Your task to perform on an android device: Search for the new steph curry shoes on Amazon. Image 0: 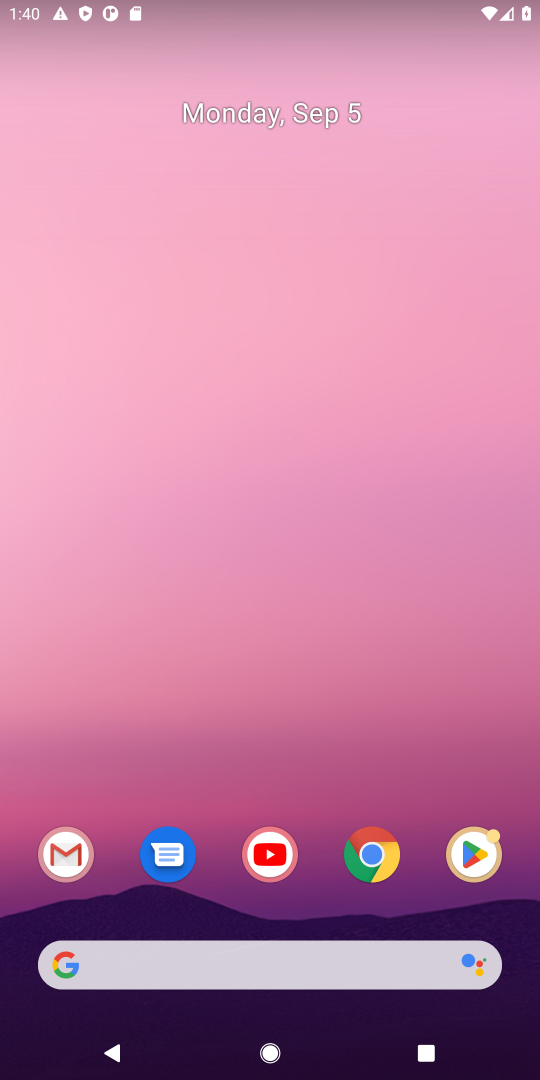
Step 0: click (346, 967)
Your task to perform on an android device: Search for the new steph curry shoes on Amazon. Image 1: 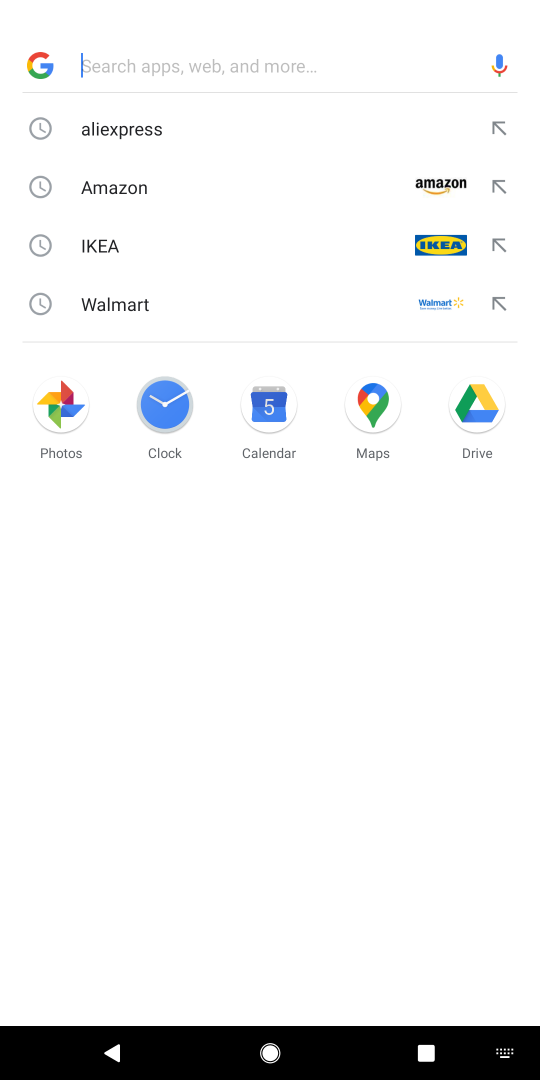
Step 1: press enter
Your task to perform on an android device: Search for the new steph curry shoes on Amazon. Image 2: 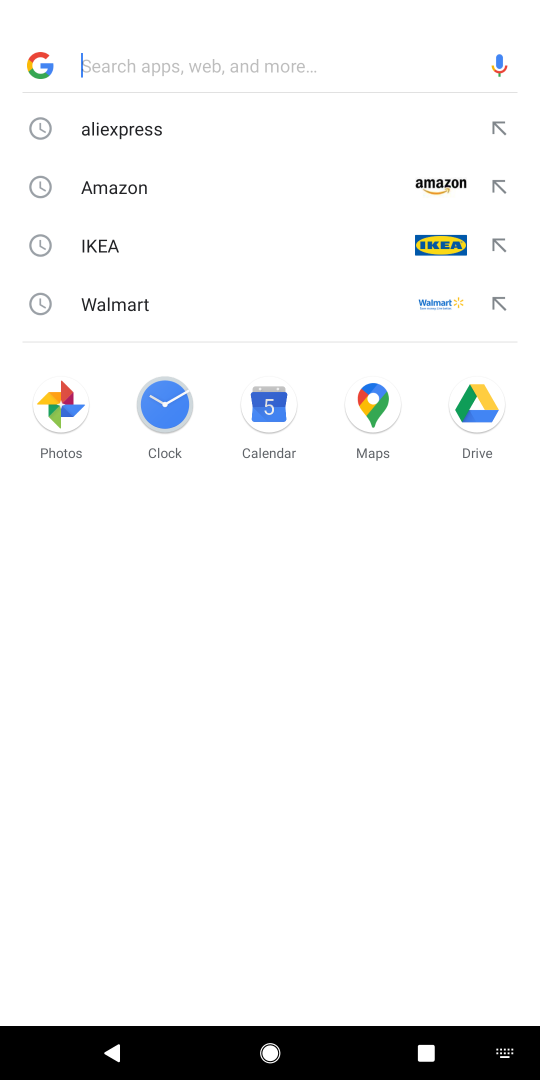
Step 2: type "amazon"
Your task to perform on an android device: Search for the new steph curry shoes on Amazon. Image 3: 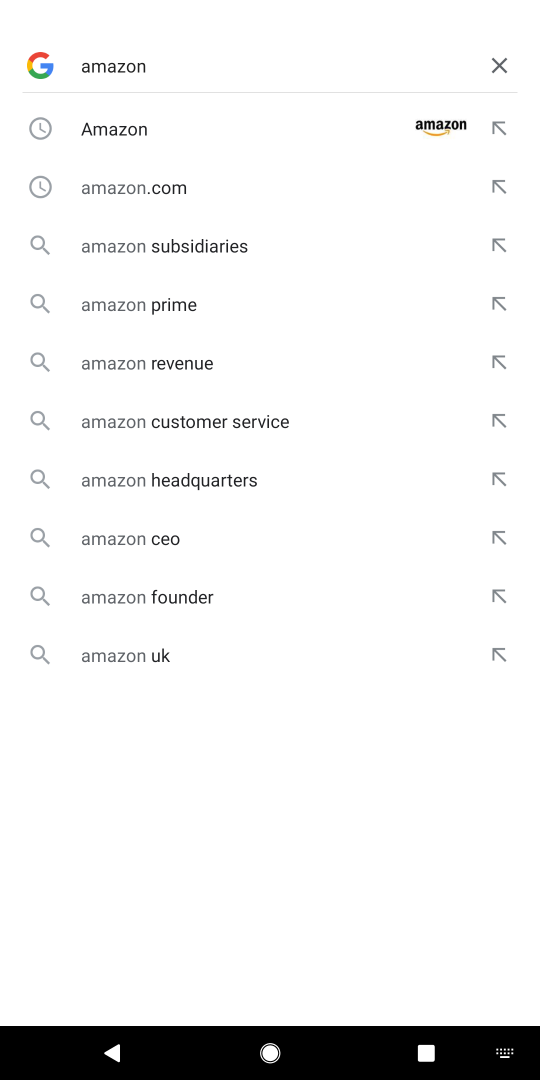
Step 3: click (192, 130)
Your task to perform on an android device: Search for the new steph curry shoes on Amazon. Image 4: 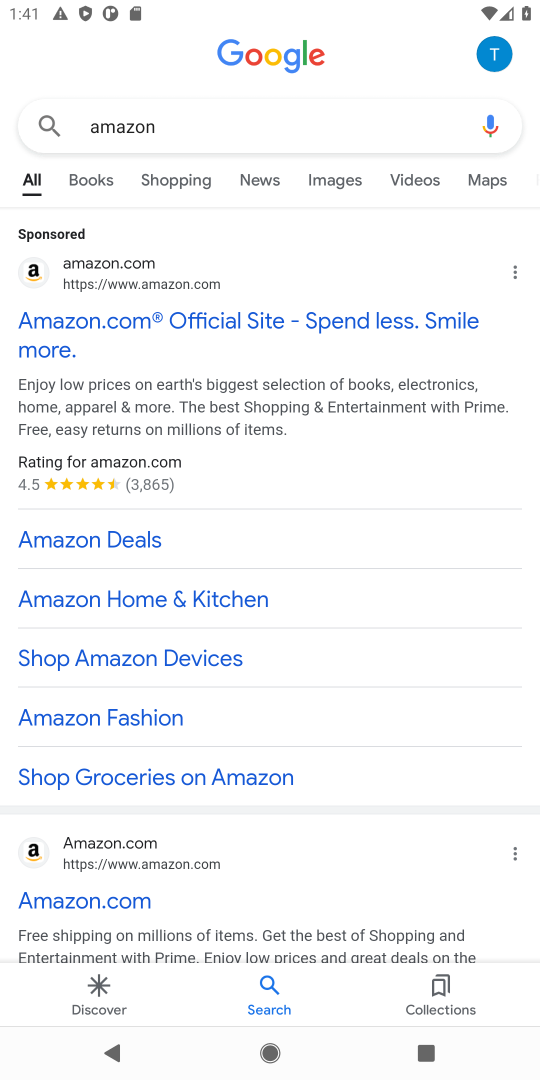
Step 4: click (215, 323)
Your task to perform on an android device: Search for the new steph curry shoes on Amazon. Image 5: 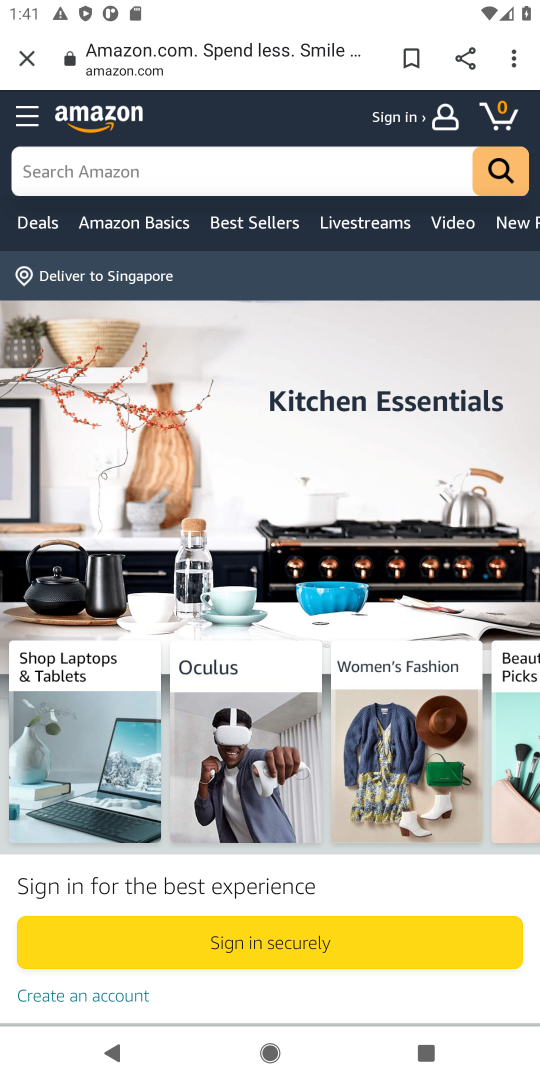
Step 5: click (283, 165)
Your task to perform on an android device: Search for the new steph curry shoes on Amazon. Image 6: 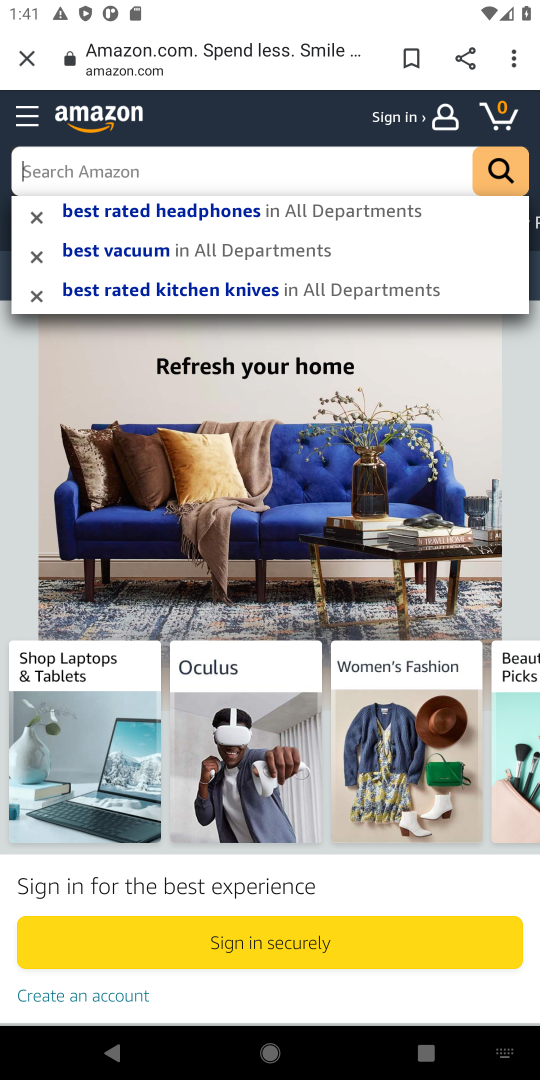
Step 6: press enter
Your task to perform on an android device: Search for the new steph curry shoes on Amazon. Image 7: 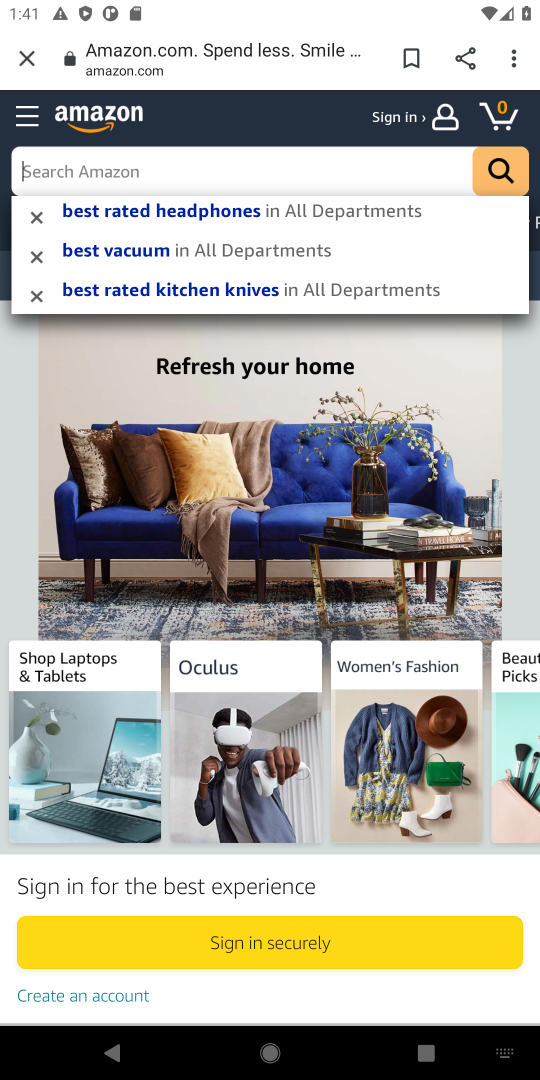
Step 7: type "new steph curry shoes"
Your task to perform on an android device: Search for the new steph curry shoes on Amazon. Image 8: 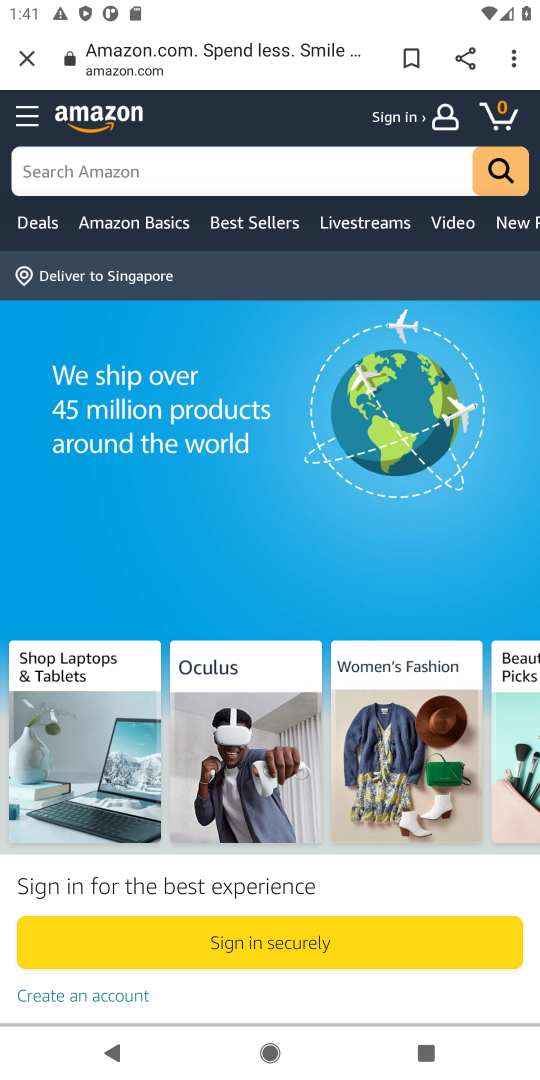
Step 8: click (212, 167)
Your task to perform on an android device: Search for the new steph curry shoes on Amazon. Image 9: 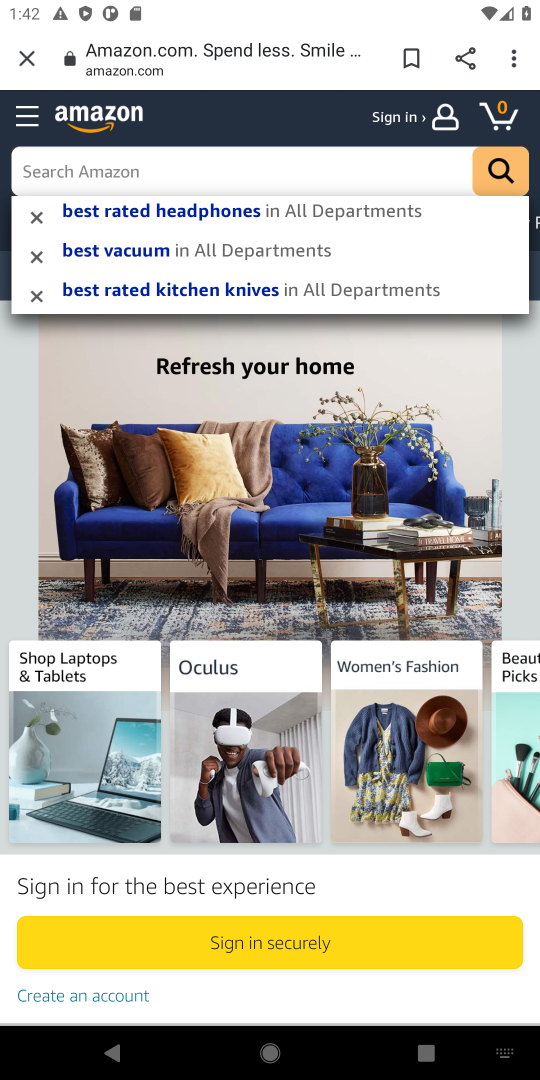
Step 9: type "new steph curry shoes"
Your task to perform on an android device: Search for the new steph curry shoes on Amazon. Image 10: 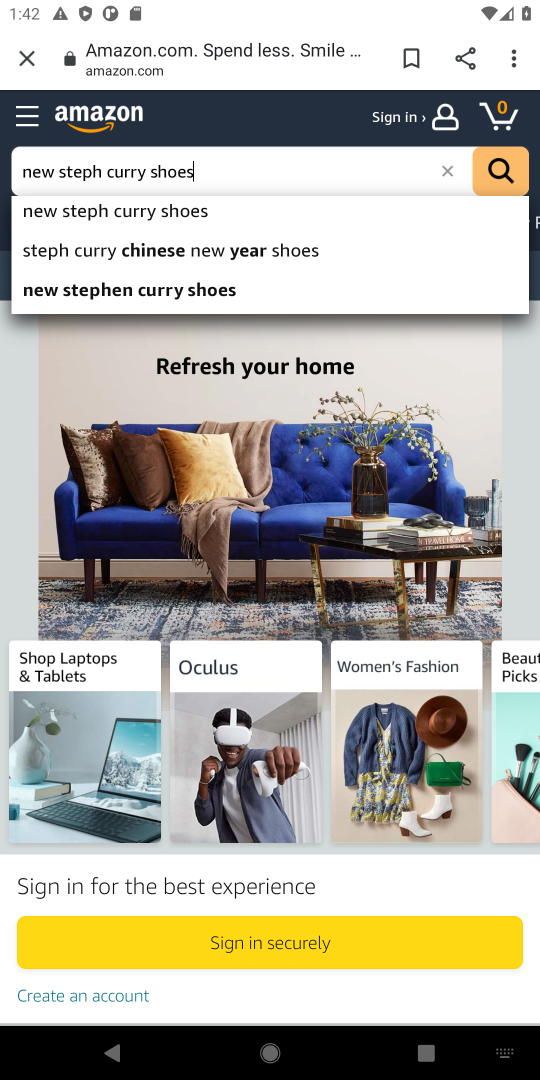
Step 10: click (221, 211)
Your task to perform on an android device: Search for the new steph curry shoes on Amazon. Image 11: 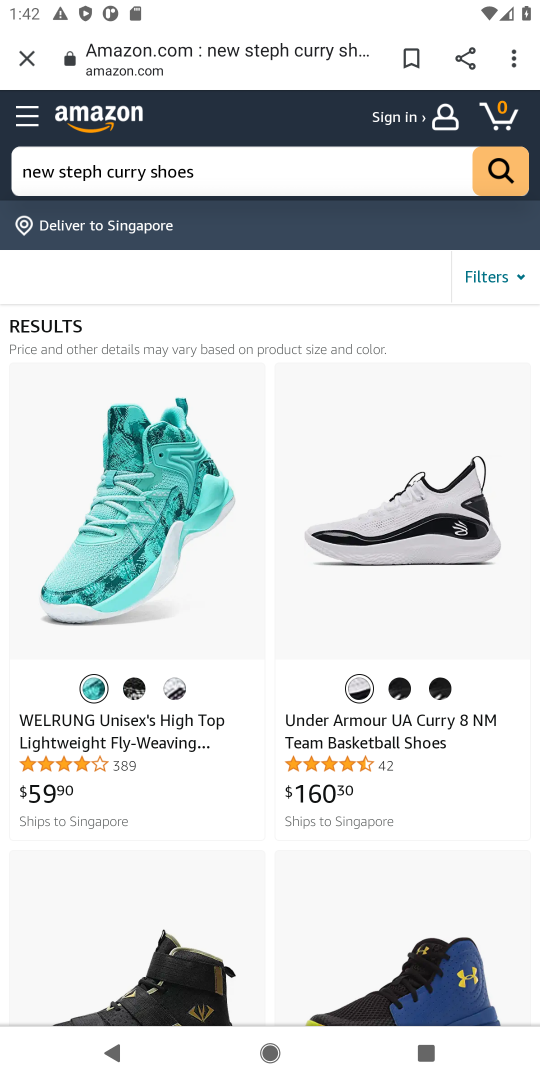
Step 11: task complete